Your task to perform on an android device: turn off wifi Image 0: 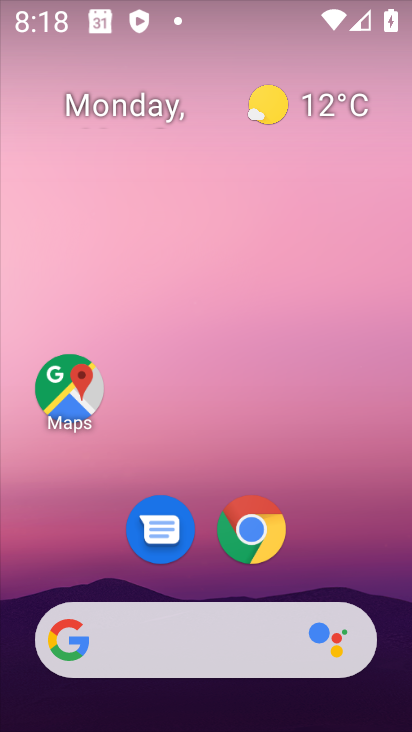
Step 0: drag from (214, 600) to (151, 4)
Your task to perform on an android device: turn off wifi Image 1: 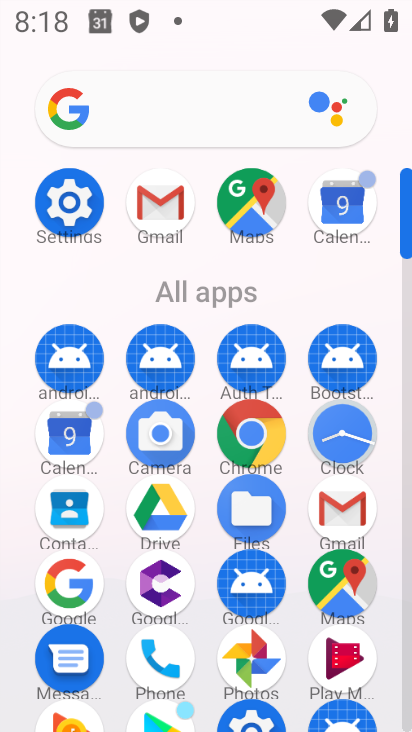
Step 1: click (77, 209)
Your task to perform on an android device: turn off wifi Image 2: 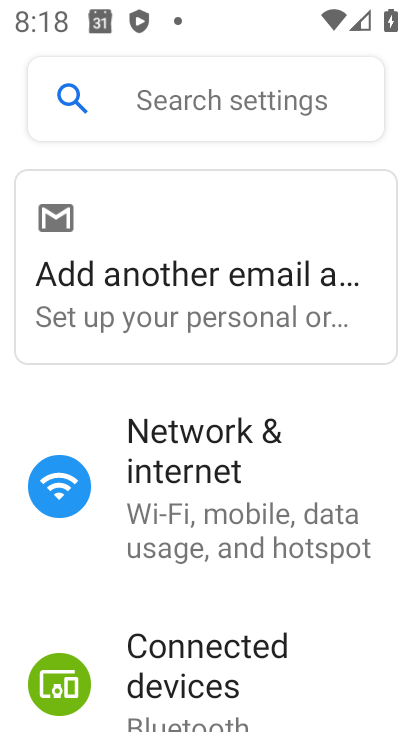
Step 2: click (187, 464)
Your task to perform on an android device: turn off wifi Image 3: 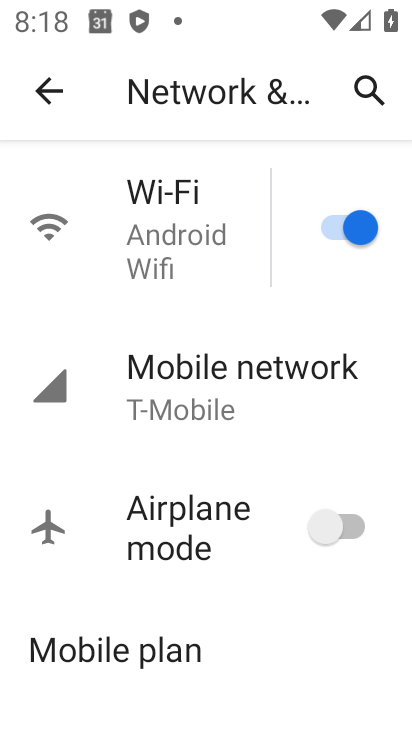
Step 3: click (338, 234)
Your task to perform on an android device: turn off wifi Image 4: 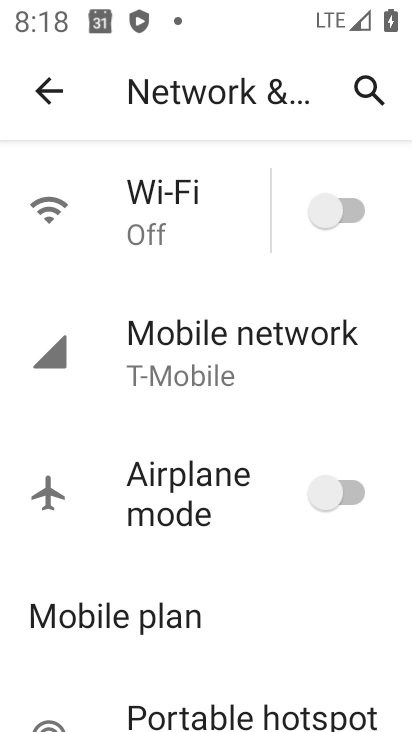
Step 4: task complete